Your task to perform on an android device: Open network settings Image 0: 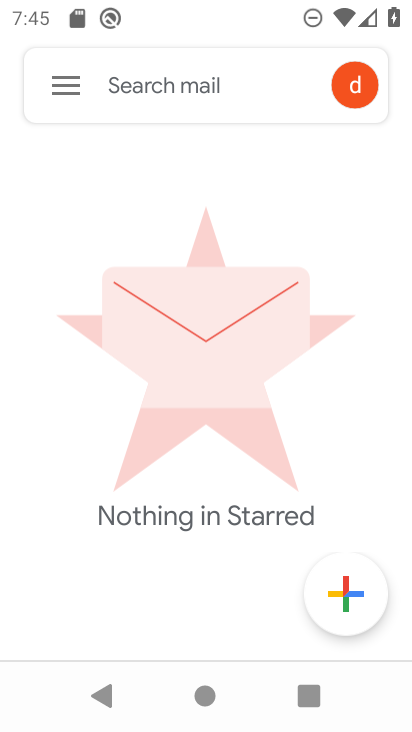
Step 0: press home button
Your task to perform on an android device: Open network settings Image 1: 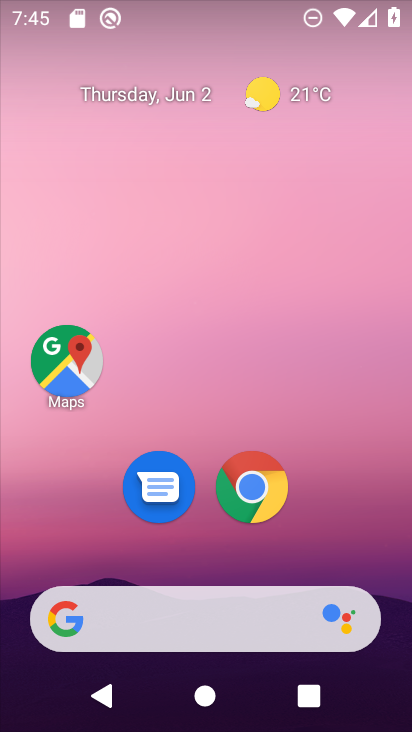
Step 1: drag from (224, 572) to (211, 113)
Your task to perform on an android device: Open network settings Image 2: 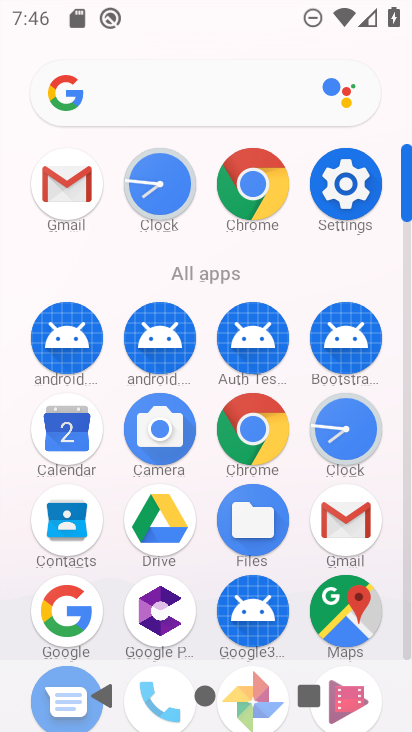
Step 2: click (341, 188)
Your task to perform on an android device: Open network settings Image 3: 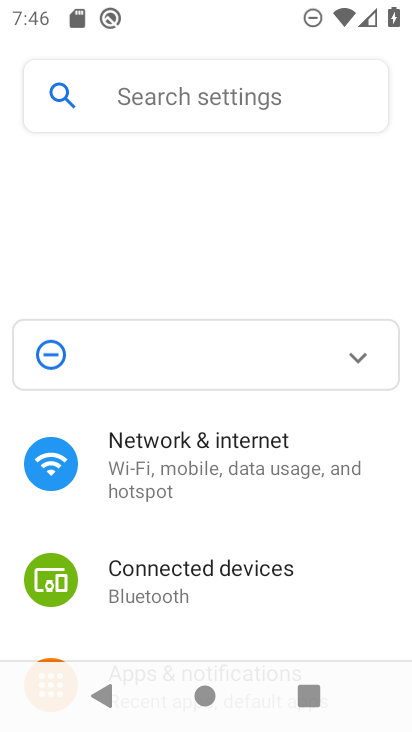
Step 3: click (127, 306)
Your task to perform on an android device: Open network settings Image 4: 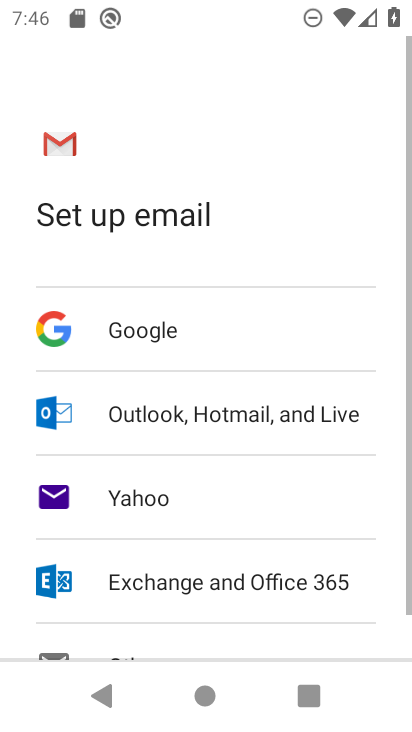
Step 4: press back button
Your task to perform on an android device: Open network settings Image 5: 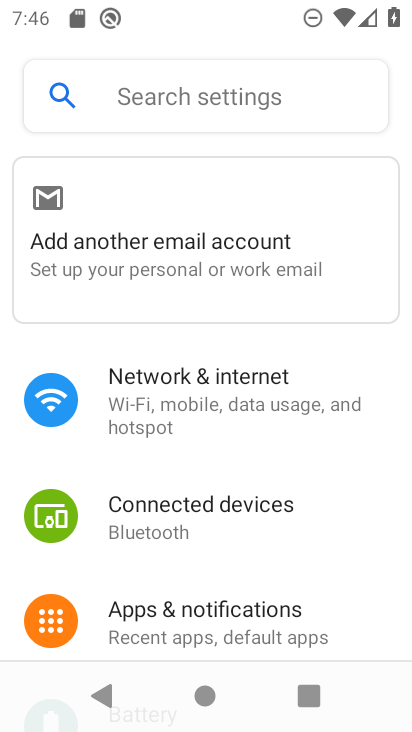
Step 5: click (155, 422)
Your task to perform on an android device: Open network settings Image 6: 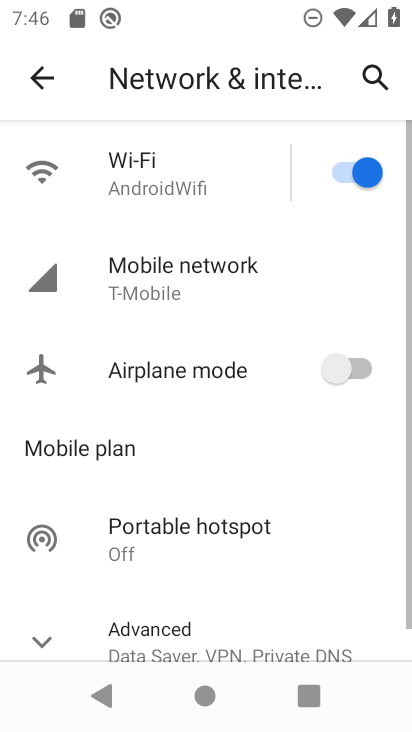
Step 6: task complete